Your task to perform on an android device: Do I have any events this weekend? Image 0: 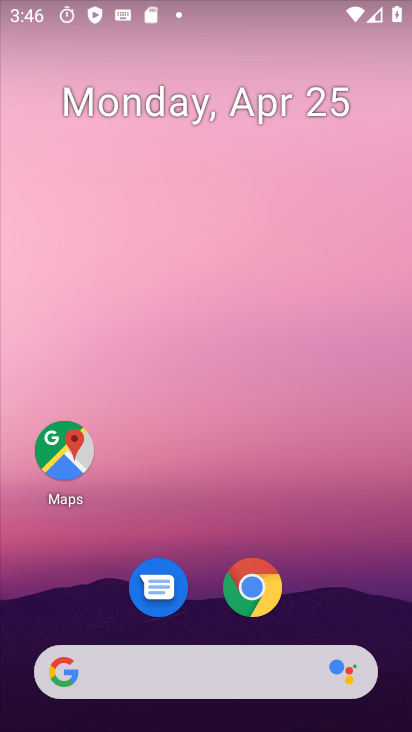
Step 0: drag from (335, 537) to (271, 80)
Your task to perform on an android device: Do I have any events this weekend? Image 1: 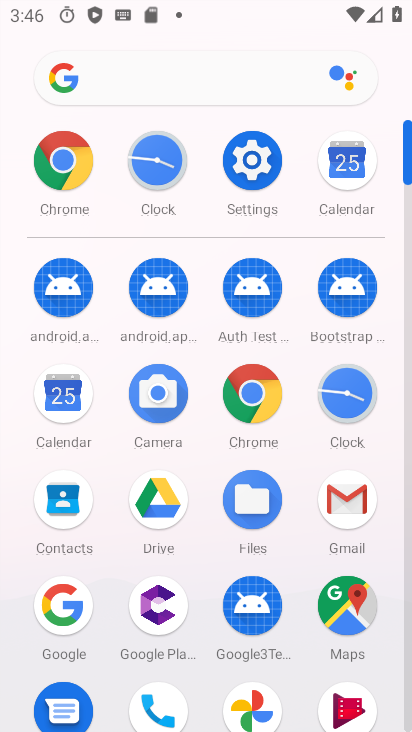
Step 1: click (76, 400)
Your task to perform on an android device: Do I have any events this weekend? Image 2: 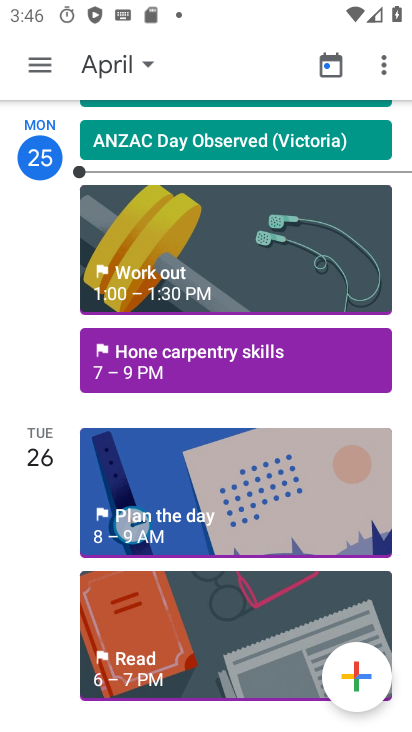
Step 2: click (121, 69)
Your task to perform on an android device: Do I have any events this weekend? Image 3: 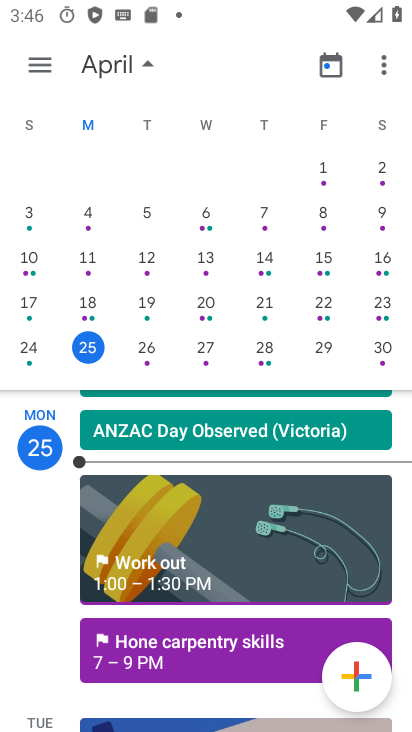
Step 3: task complete